Your task to perform on an android device: Do I have any events this weekend? Image 0: 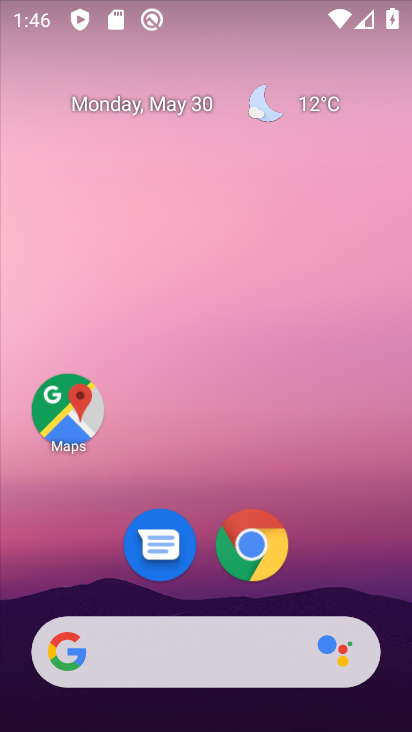
Step 0: click (180, 114)
Your task to perform on an android device: Do I have any events this weekend? Image 1: 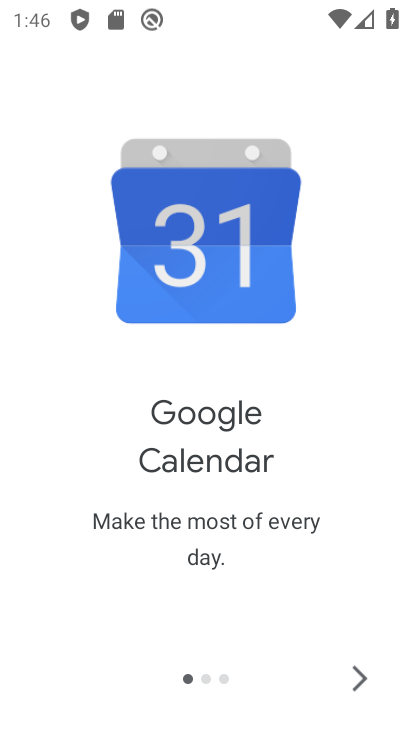
Step 1: click (353, 687)
Your task to perform on an android device: Do I have any events this weekend? Image 2: 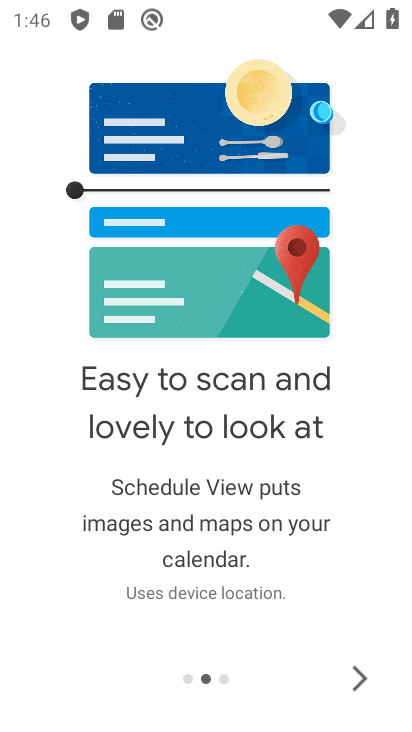
Step 2: click (353, 687)
Your task to perform on an android device: Do I have any events this weekend? Image 3: 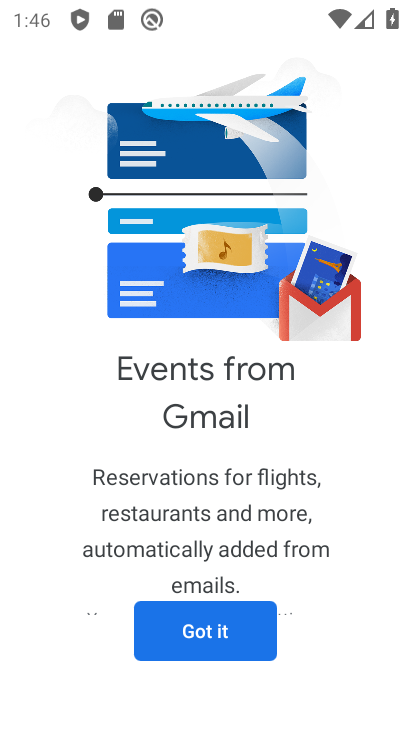
Step 3: click (222, 634)
Your task to perform on an android device: Do I have any events this weekend? Image 4: 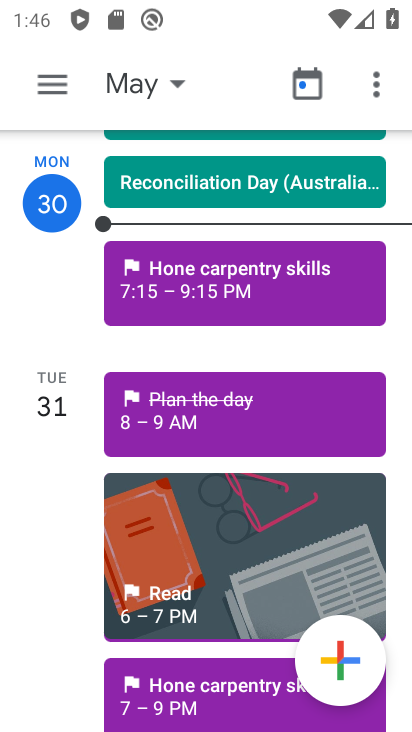
Step 4: click (163, 76)
Your task to perform on an android device: Do I have any events this weekend? Image 5: 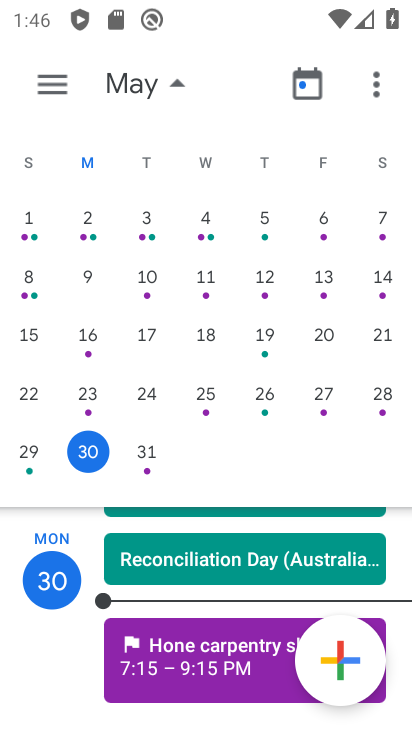
Step 5: click (383, 450)
Your task to perform on an android device: Do I have any events this weekend? Image 6: 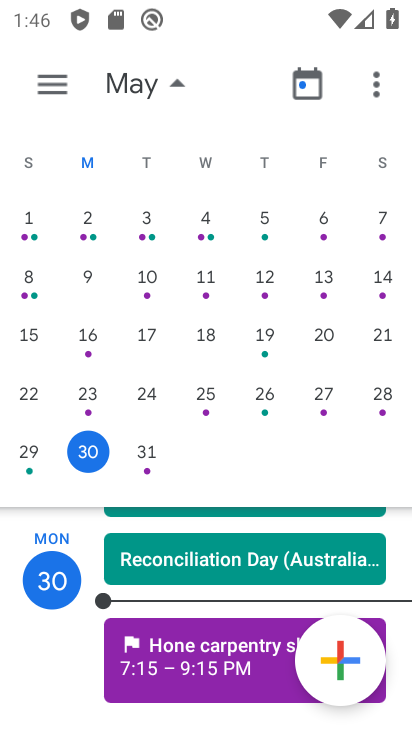
Step 6: drag from (383, 450) to (25, 453)
Your task to perform on an android device: Do I have any events this weekend? Image 7: 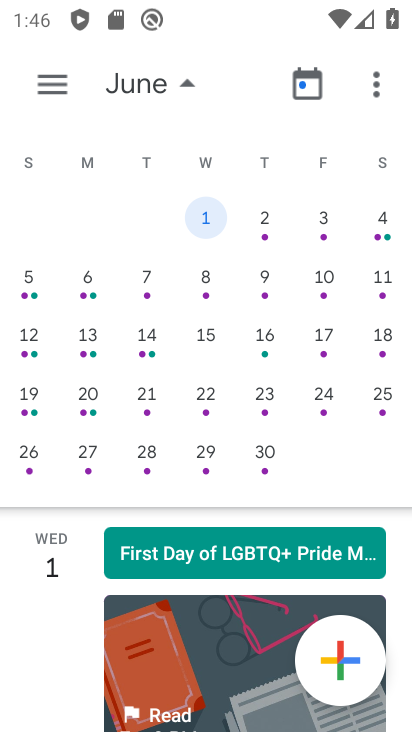
Step 7: click (384, 217)
Your task to perform on an android device: Do I have any events this weekend? Image 8: 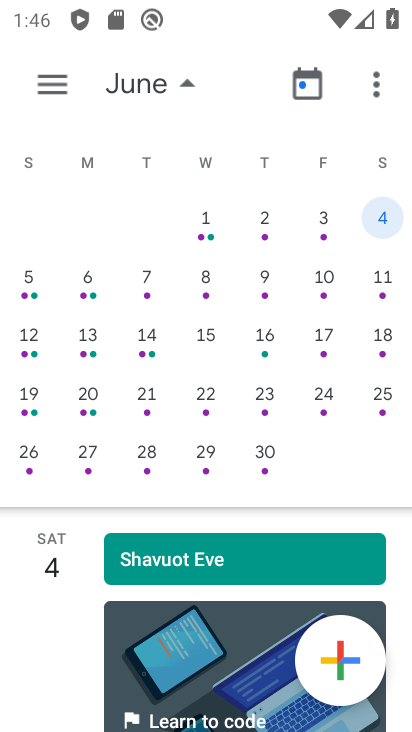
Step 8: task complete